Your task to perform on an android device: open app "Calculator" Image 0: 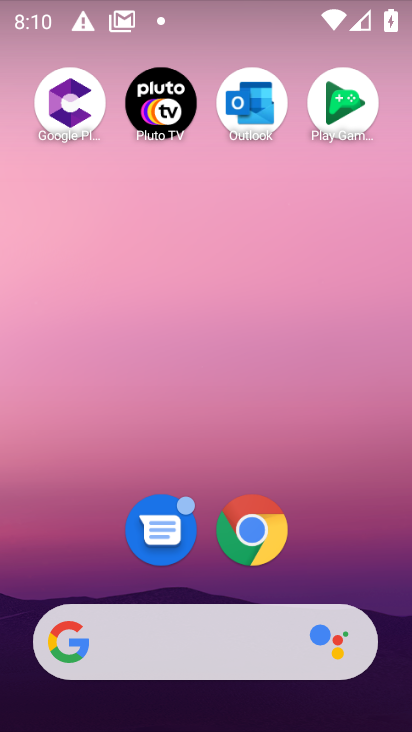
Step 0: drag from (340, 522) to (286, 7)
Your task to perform on an android device: open app "Calculator" Image 1: 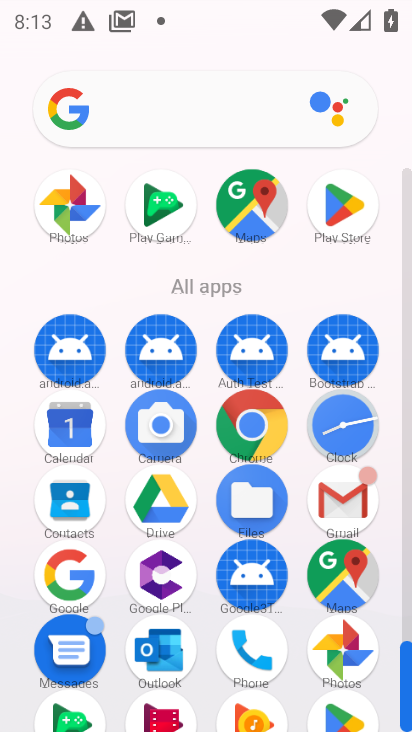
Step 1: drag from (393, 546) to (410, 188)
Your task to perform on an android device: open app "Calculator" Image 2: 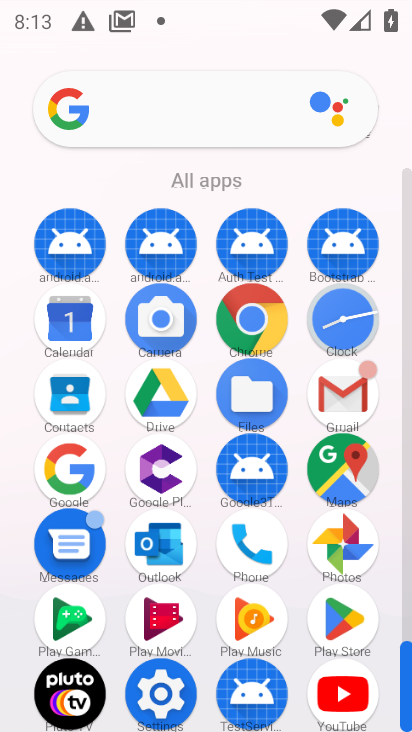
Step 2: click (84, 406)
Your task to perform on an android device: open app "Calculator" Image 3: 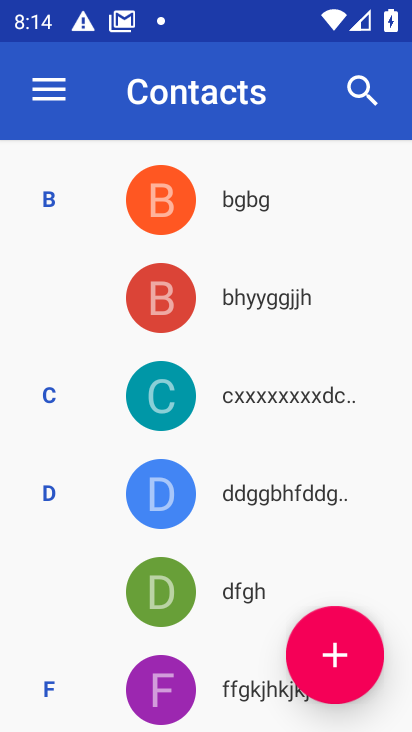
Step 3: task complete